Your task to perform on an android device: turn off sleep mode Image 0: 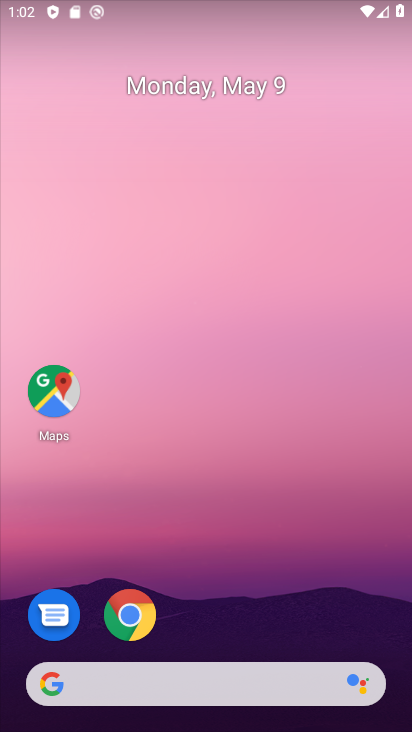
Step 0: drag from (209, 655) to (239, 465)
Your task to perform on an android device: turn off sleep mode Image 1: 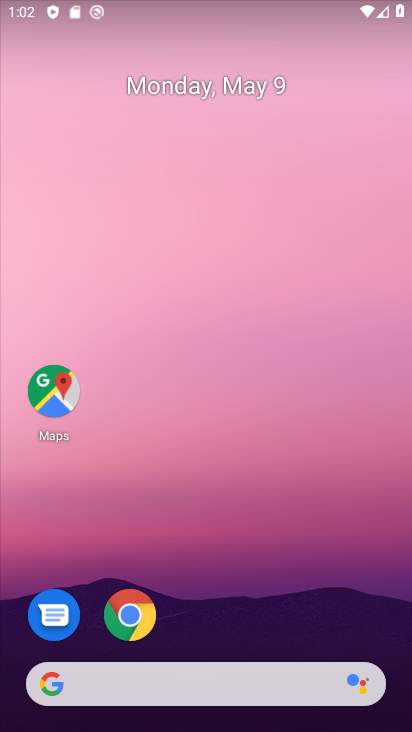
Step 1: drag from (211, 644) to (238, 514)
Your task to perform on an android device: turn off sleep mode Image 2: 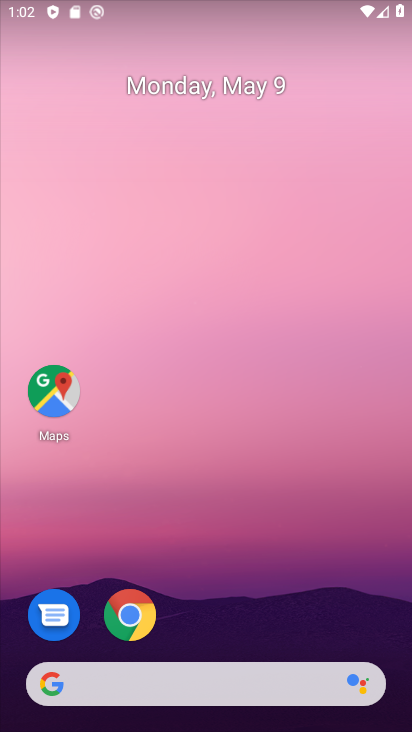
Step 2: drag from (214, 649) to (220, 418)
Your task to perform on an android device: turn off sleep mode Image 3: 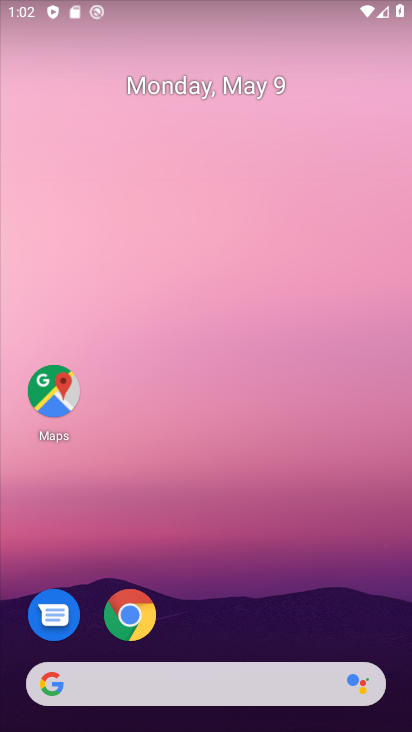
Step 3: drag from (256, 632) to (239, 39)
Your task to perform on an android device: turn off sleep mode Image 4: 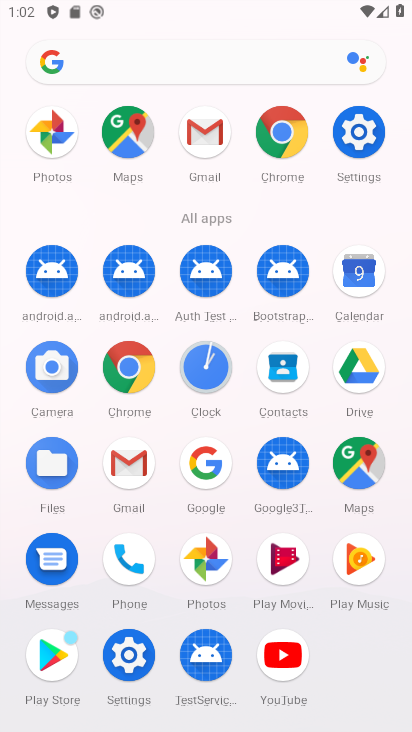
Step 4: click (130, 656)
Your task to perform on an android device: turn off sleep mode Image 5: 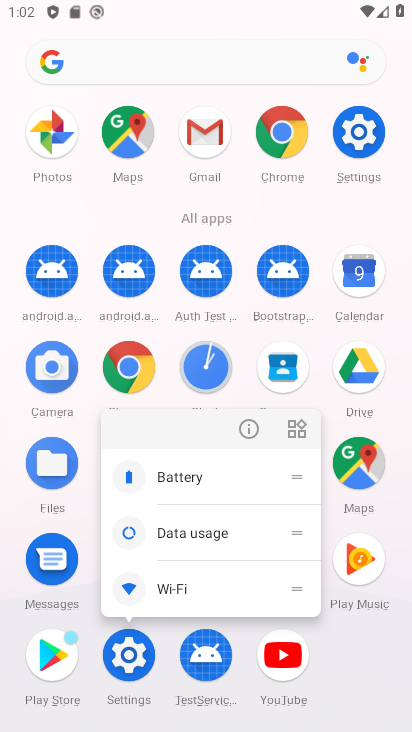
Step 5: click (130, 661)
Your task to perform on an android device: turn off sleep mode Image 6: 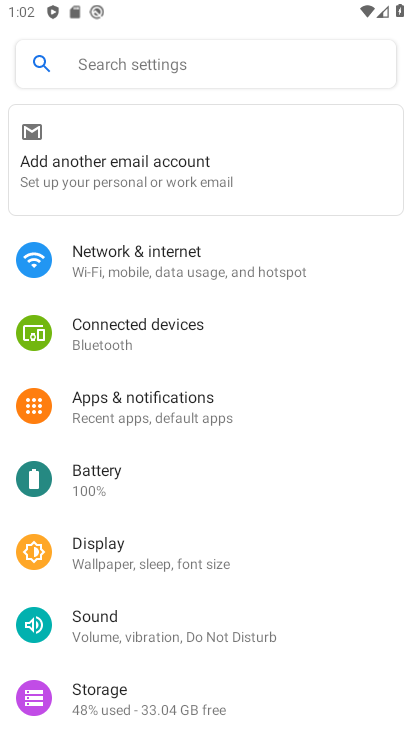
Step 6: click (170, 552)
Your task to perform on an android device: turn off sleep mode Image 7: 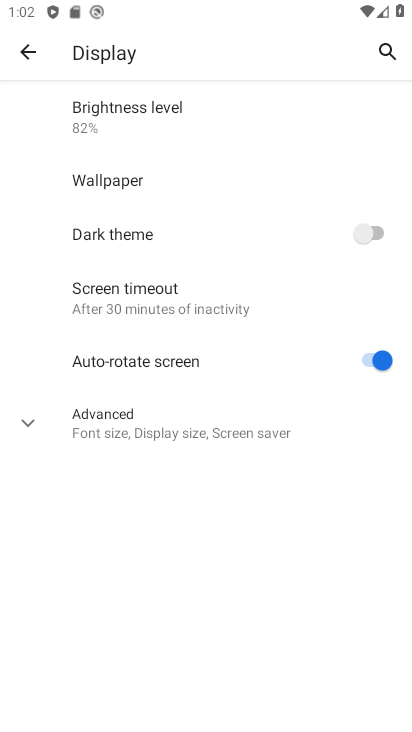
Step 7: click (281, 427)
Your task to perform on an android device: turn off sleep mode Image 8: 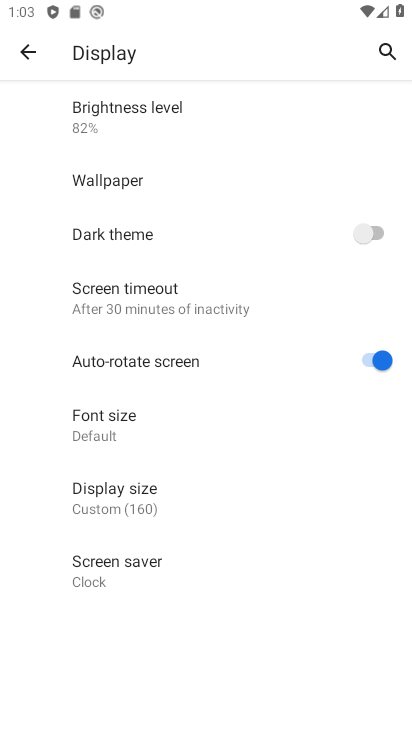
Step 8: task complete